Your task to perform on an android device: clear all cookies in the chrome app Image 0: 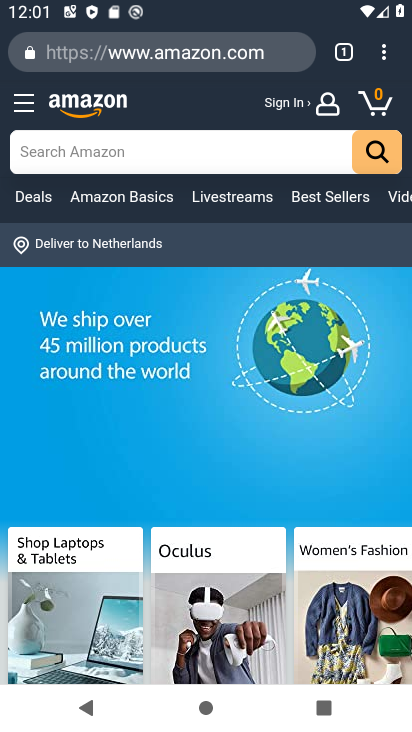
Step 0: press home button
Your task to perform on an android device: clear all cookies in the chrome app Image 1: 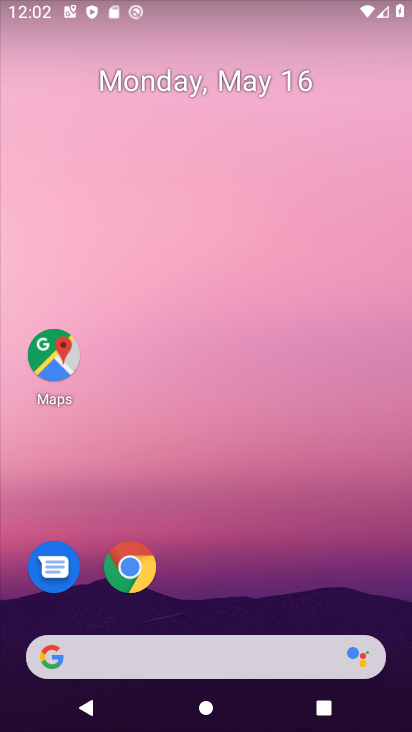
Step 1: click (143, 563)
Your task to perform on an android device: clear all cookies in the chrome app Image 2: 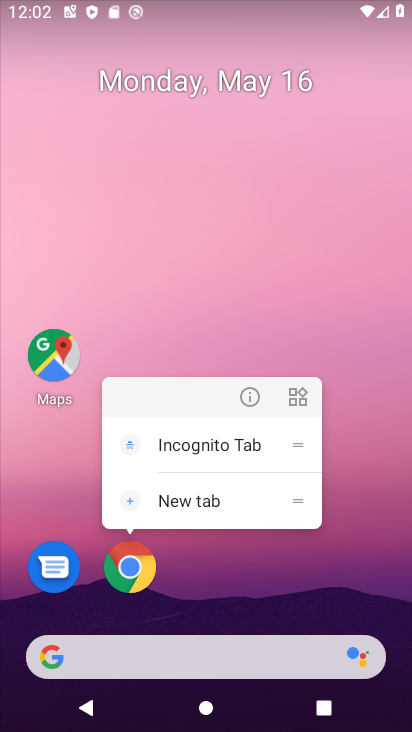
Step 2: click (132, 567)
Your task to perform on an android device: clear all cookies in the chrome app Image 3: 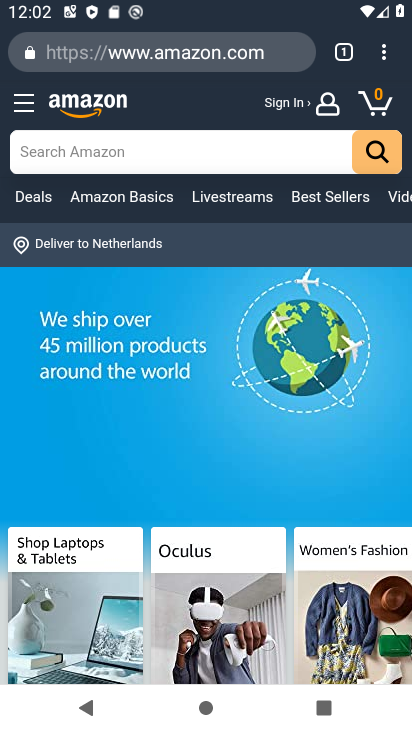
Step 3: drag from (384, 45) to (227, 619)
Your task to perform on an android device: clear all cookies in the chrome app Image 4: 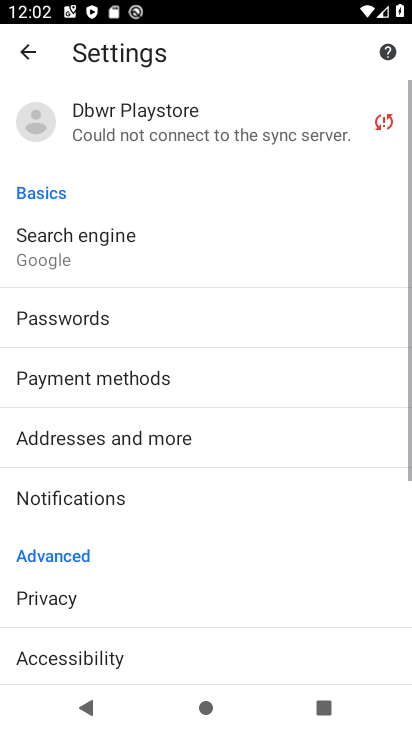
Step 4: drag from (209, 589) to (229, 500)
Your task to perform on an android device: clear all cookies in the chrome app Image 5: 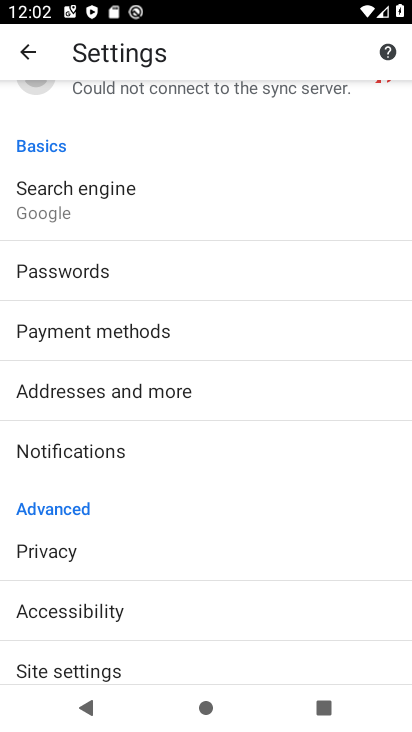
Step 5: click (21, 20)
Your task to perform on an android device: clear all cookies in the chrome app Image 6: 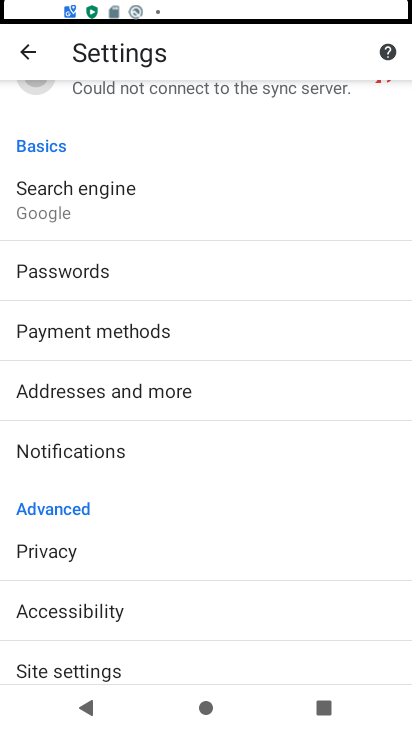
Step 6: click (29, 46)
Your task to perform on an android device: clear all cookies in the chrome app Image 7: 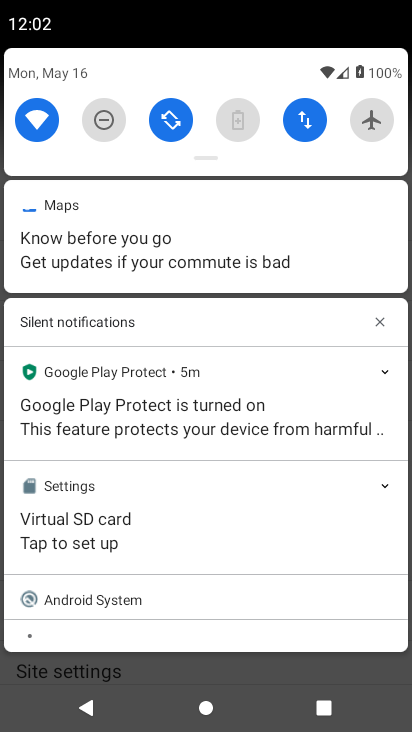
Step 7: drag from (263, 681) to (230, 2)
Your task to perform on an android device: clear all cookies in the chrome app Image 8: 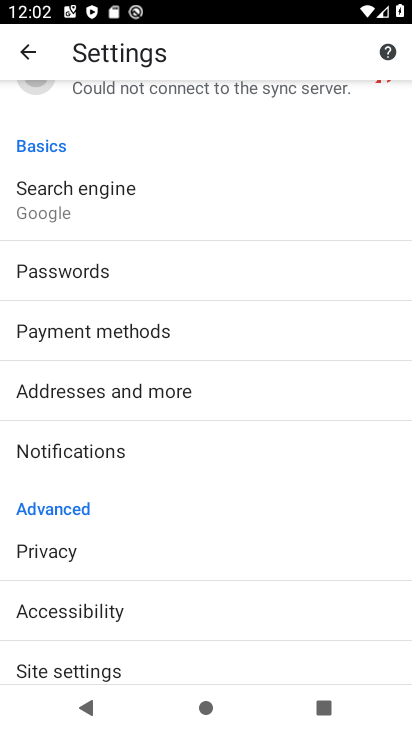
Step 8: click (36, 55)
Your task to perform on an android device: clear all cookies in the chrome app Image 9: 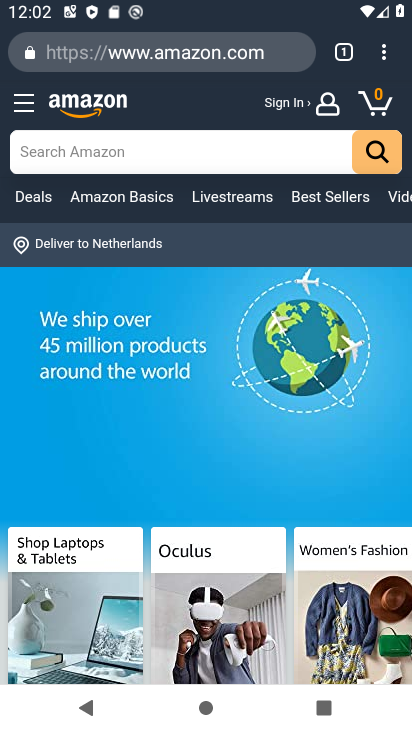
Step 9: drag from (383, 50) to (227, 300)
Your task to perform on an android device: clear all cookies in the chrome app Image 10: 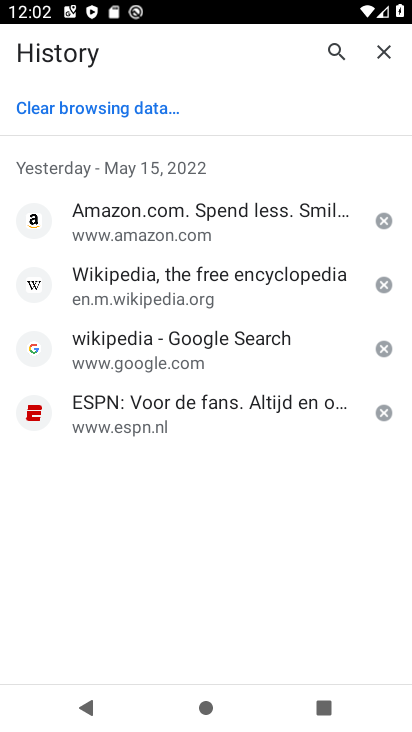
Step 10: click (118, 112)
Your task to perform on an android device: clear all cookies in the chrome app Image 11: 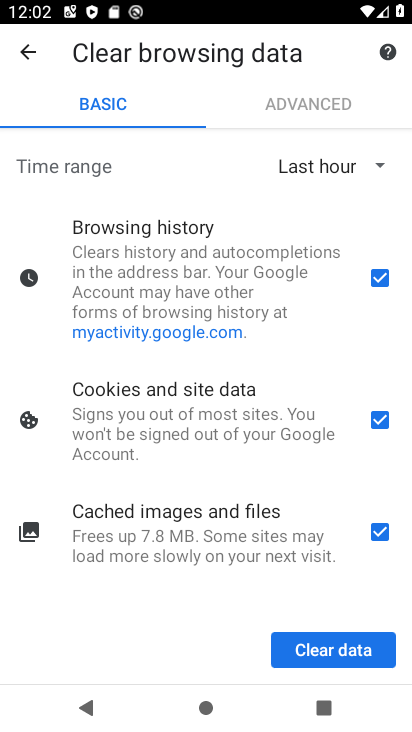
Step 11: click (330, 166)
Your task to perform on an android device: clear all cookies in the chrome app Image 12: 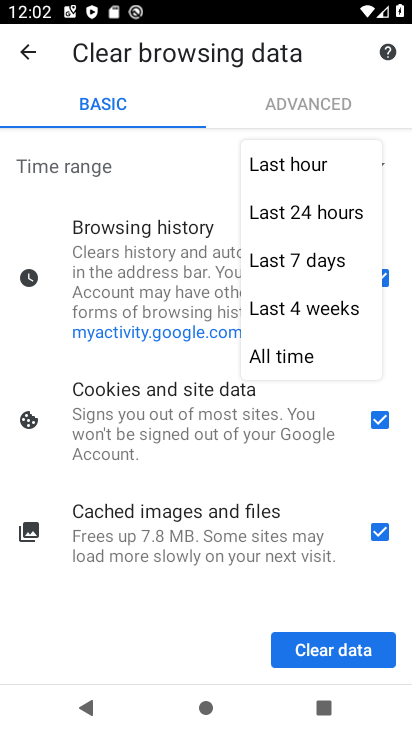
Step 12: click (298, 357)
Your task to perform on an android device: clear all cookies in the chrome app Image 13: 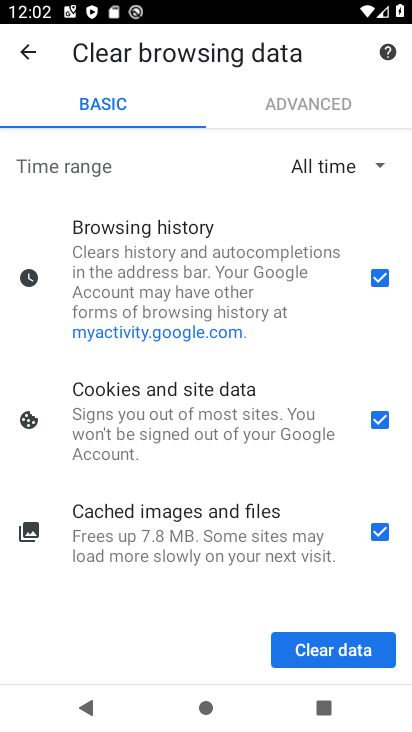
Step 13: click (373, 654)
Your task to perform on an android device: clear all cookies in the chrome app Image 14: 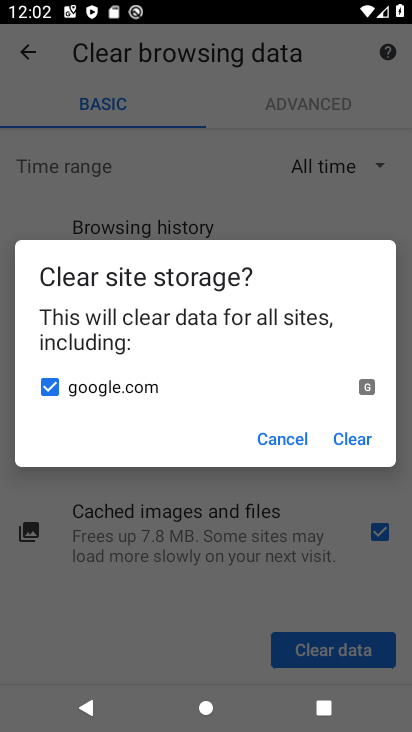
Step 14: click (343, 439)
Your task to perform on an android device: clear all cookies in the chrome app Image 15: 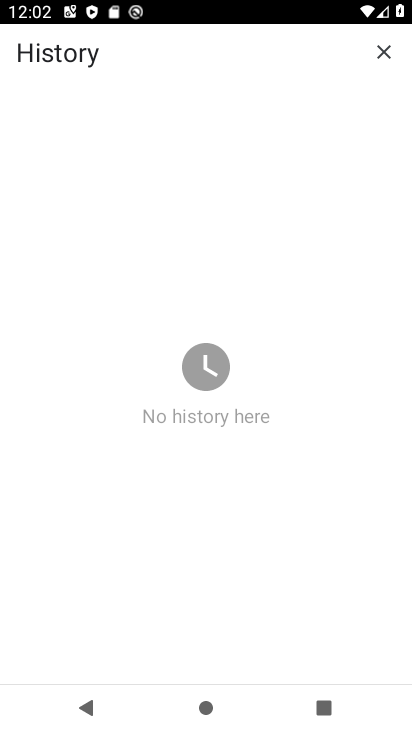
Step 15: task complete